Your task to perform on an android device: clear history in the chrome app Image 0: 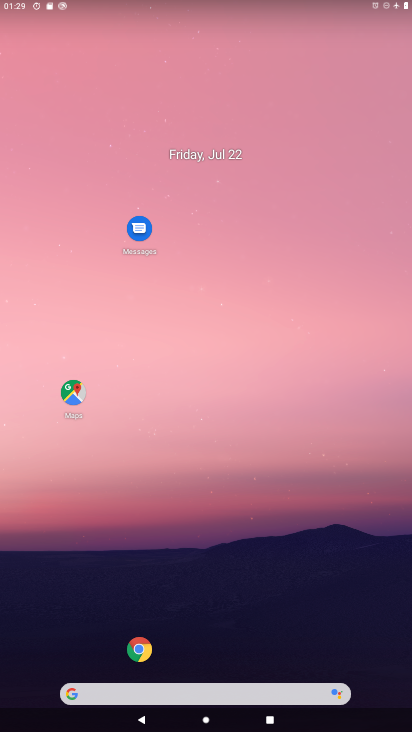
Step 0: click (132, 661)
Your task to perform on an android device: clear history in the chrome app Image 1: 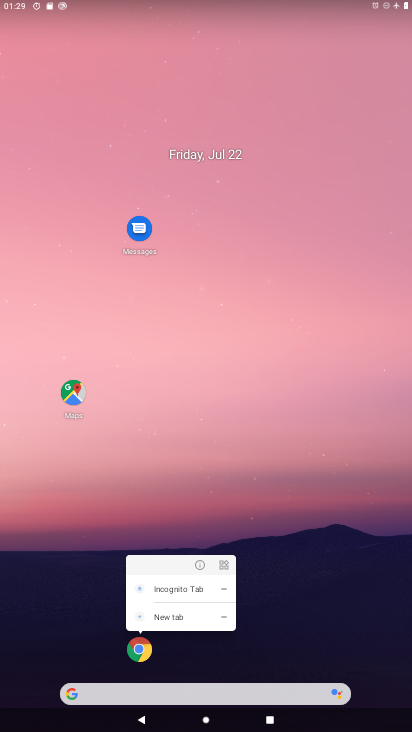
Step 1: click (136, 648)
Your task to perform on an android device: clear history in the chrome app Image 2: 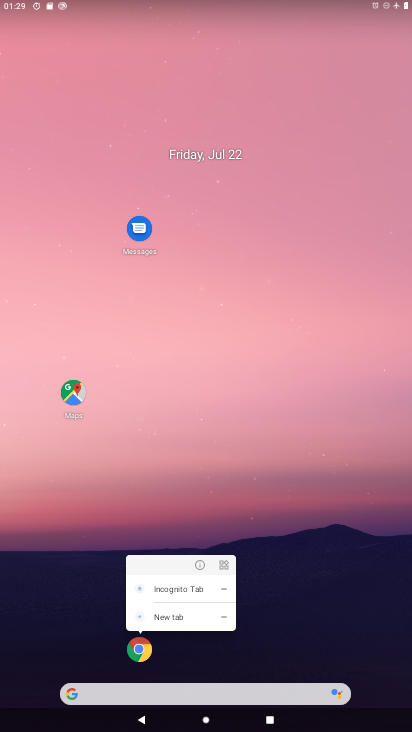
Step 2: click (136, 648)
Your task to perform on an android device: clear history in the chrome app Image 3: 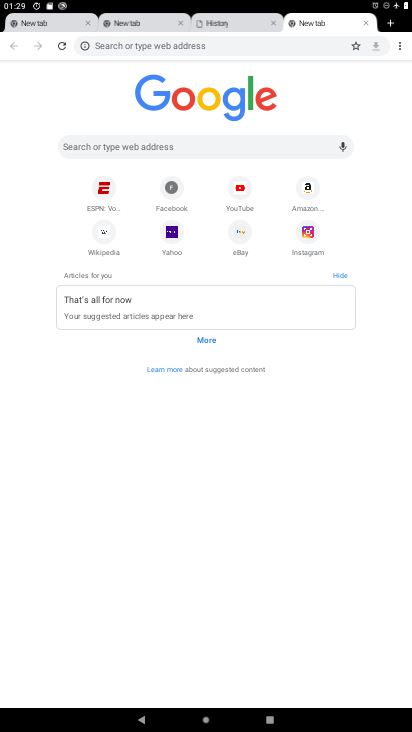
Step 3: click (395, 42)
Your task to perform on an android device: clear history in the chrome app Image 4: 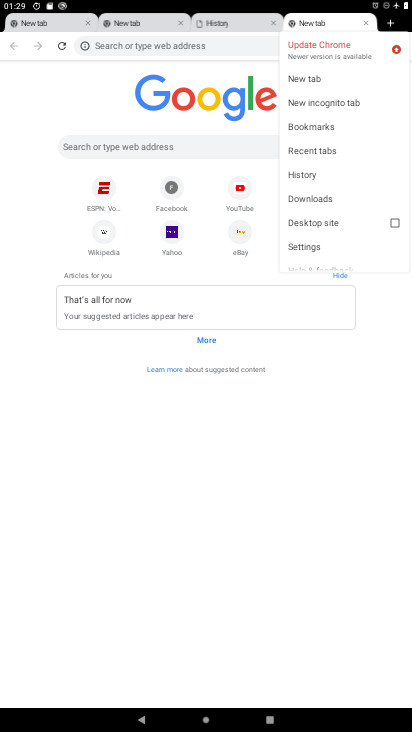
Step 4: click (307, 168)
Your task to perform on an android device: clear history in the chrome app Image 5: 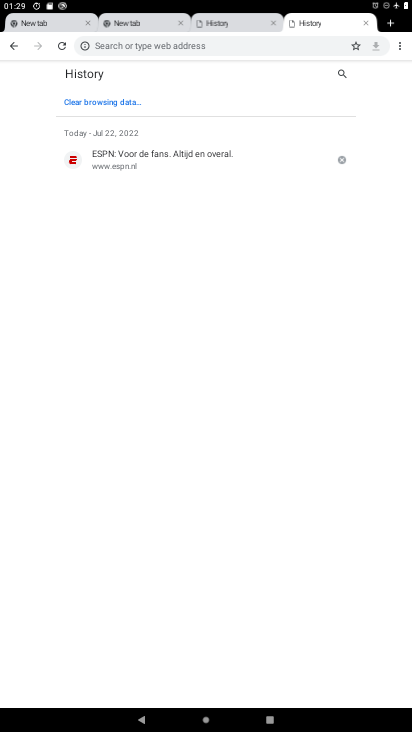
Step 5: click (115, 104)
Your task to perform on an android device: clear history in the chrome app Image 6: 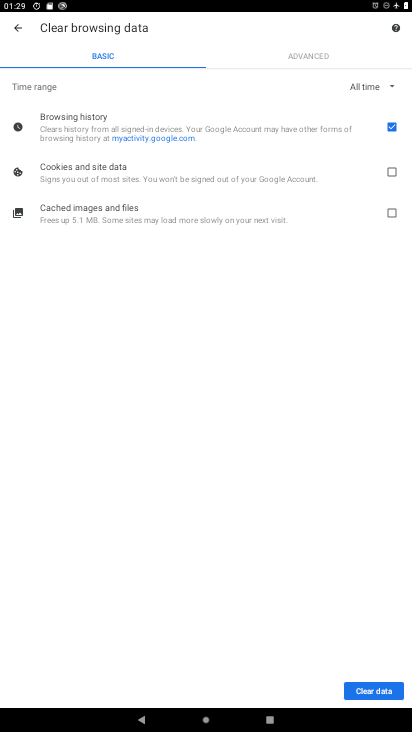
Step 6: click (377, 690)
Your task to perform on an android device: clear history in the chrome app Image 7: 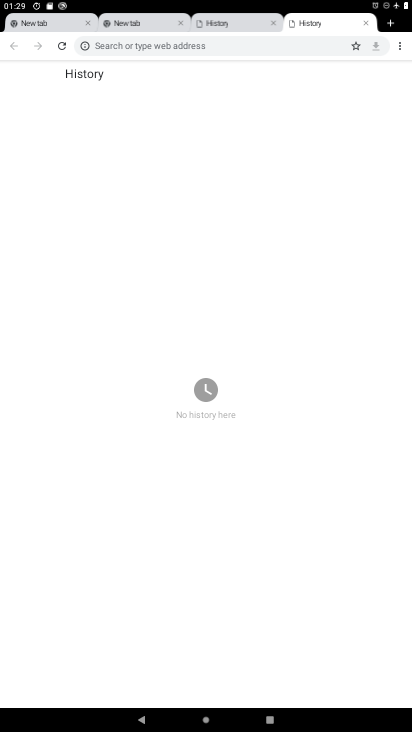
Step 7: task complete